Your task to perform on an android device: Search for seafood restaurants on Google Maps Image 0: 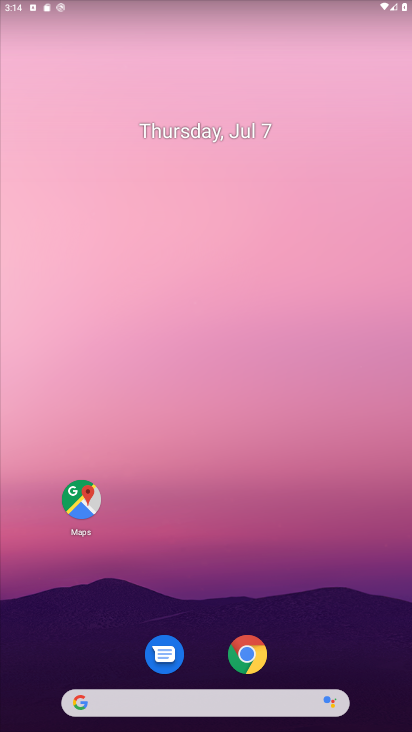
Step 0: click (84, 501)
Your task to perform on an android device: Search for seafood restaurants on Google Maps Image 1: 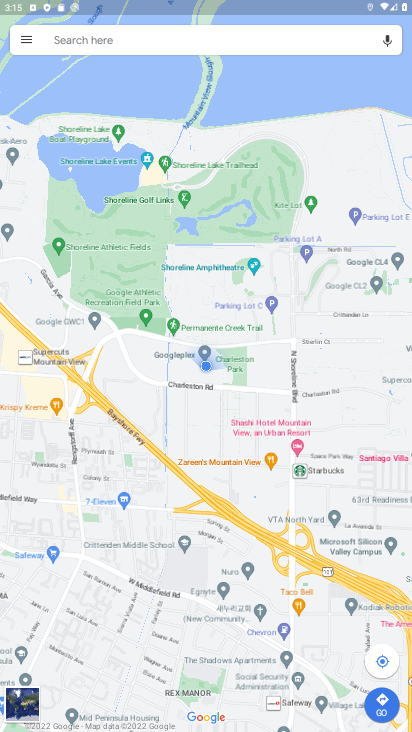
Step 1: click (104, 34)
Your task to perform on an android device: Search for seafood restaurants on Google Maps Image 2: 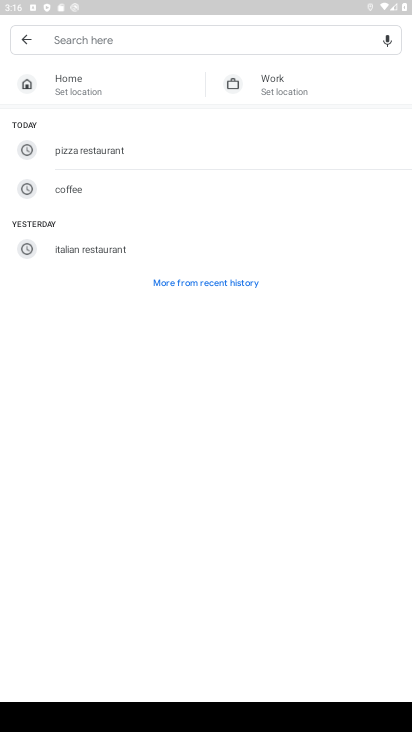
Step 2: type "seafood restaurants"
Your task to perform on an android device: Search for seafood restaurants on Google Maps Image 3: 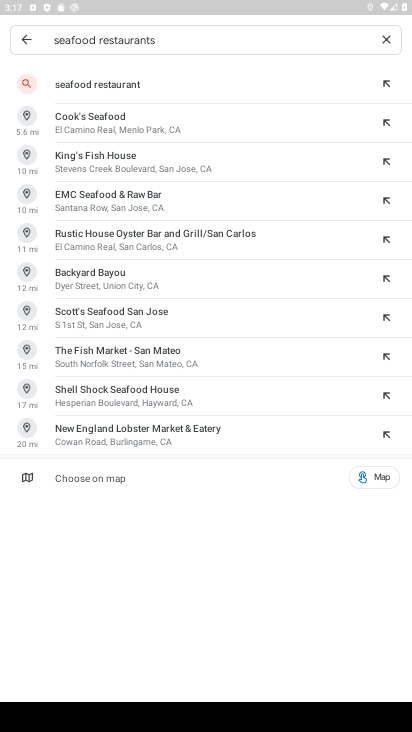
Step 3: click (195, 85)
Your task to perform on an android device: Search for seafood restaurants on Google Maps Image 4: 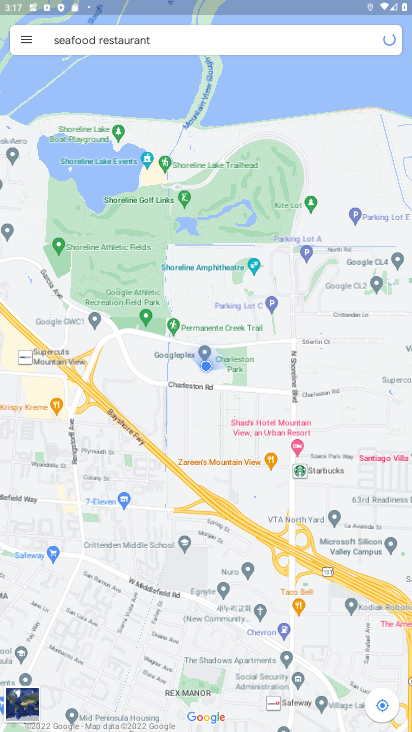
Step 4: task complete